Your task to perform on an android device: Go to network settings Image 0: 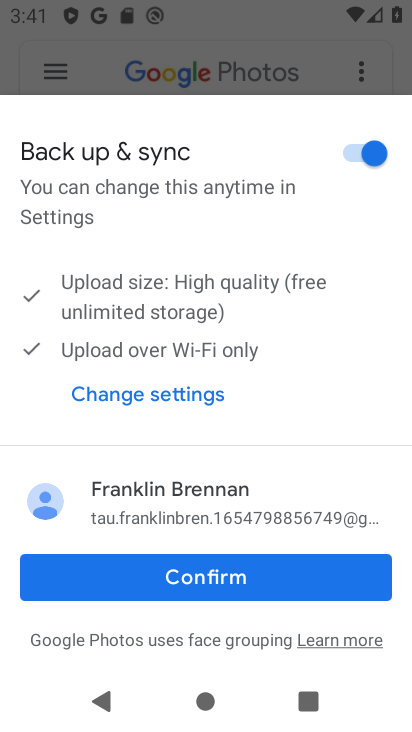
Step 0: press home button
Your task to perform on an android device: Go to network settings Image 1: 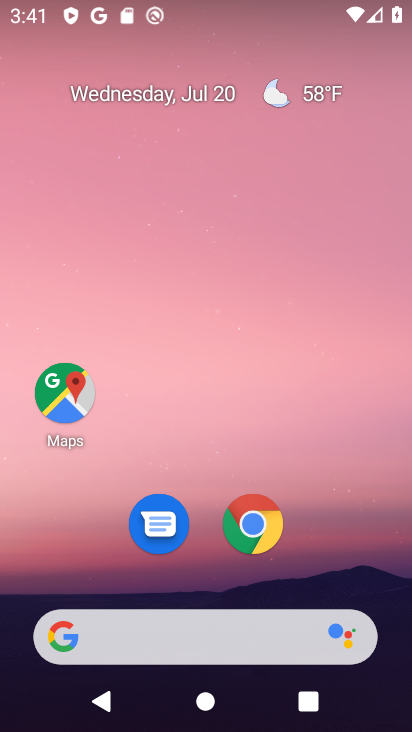
Step 1: drag from (315, 548) to (343, 91)
Your task to perform on an android device: Go to network settings Image 2: 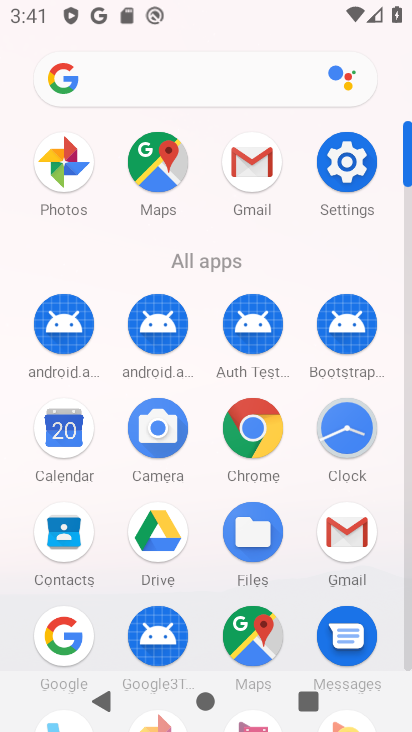
Step 2: click (345, 161)
Your task to perform on an android device: Go to network settings Image 3: 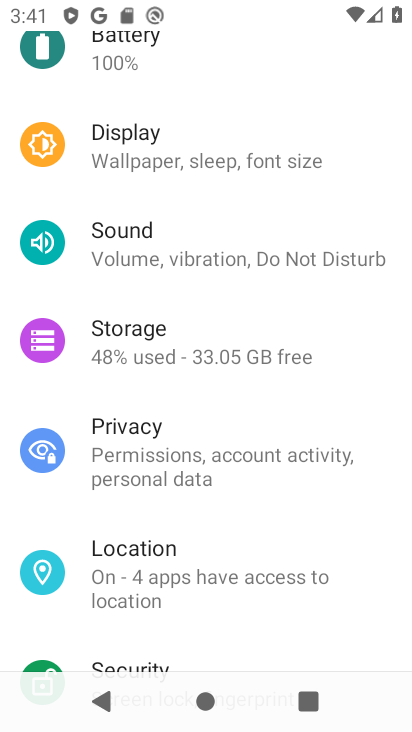
Step 3: drag from (215, 313) to (190, 606)
Your task to perform on an android device: Go to network settings Image 4: 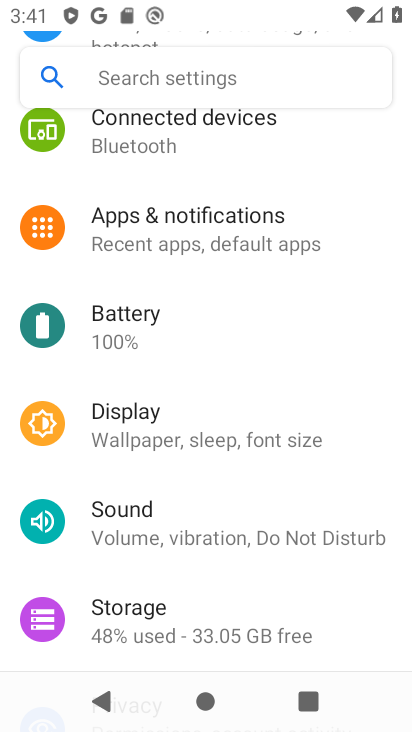
Step 4: drag from (234, 171) to (198, 577)
Your task to perform on an android device: Go to network settings Image 5: 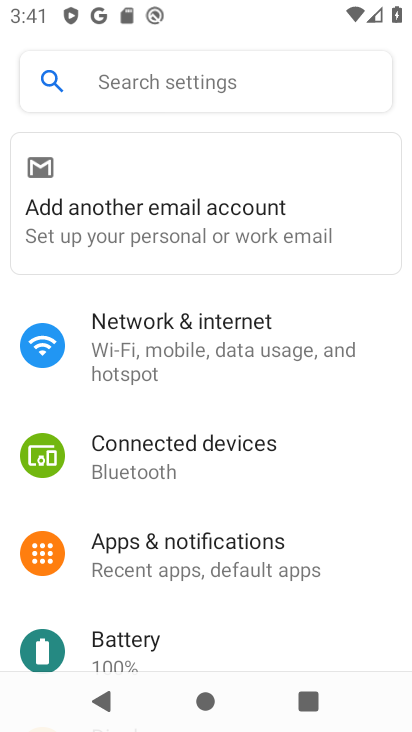
Step 5: click (206, 346)
Your task to perform on an android device: Go to network settings Image 6: 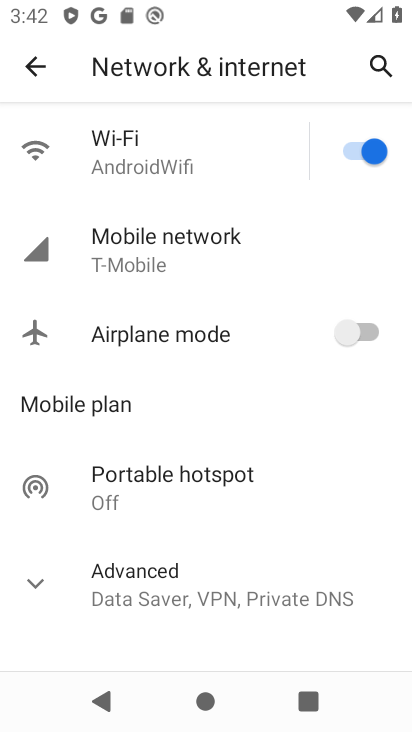
Step 6: task complete